Your task to perform on an android device: Check the news Image 0: 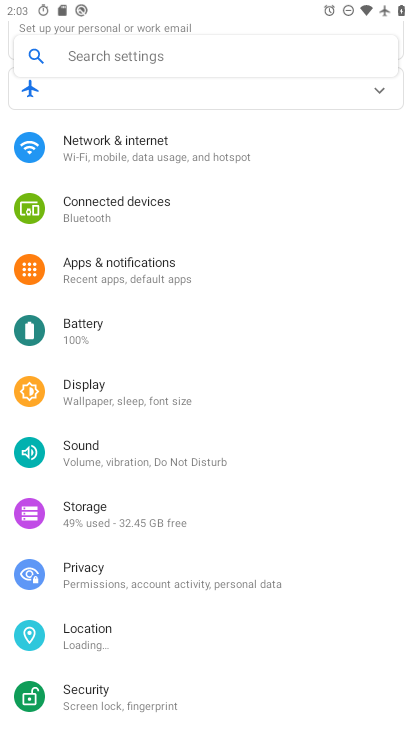
Step 0: press home button
Your task to perform on an android device: Check the news Image 1: 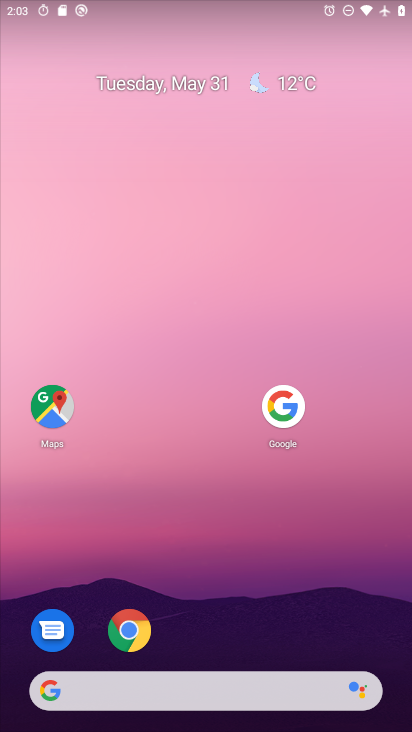
Step 1: click (55, 695)
Your task to perform on an android device: Check the news Image 2: 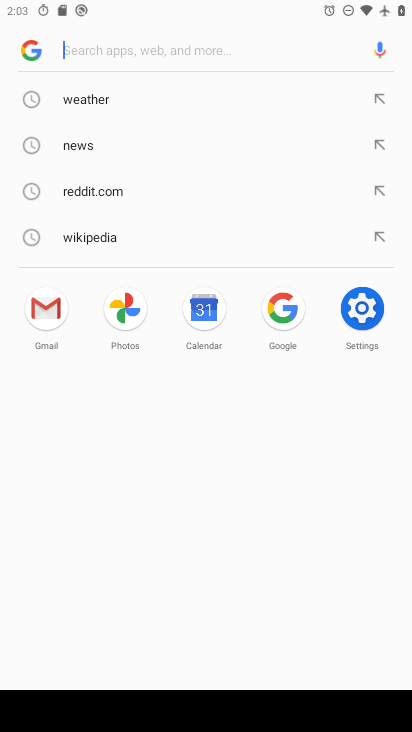
Step 2: click (76, 144)
Your task to perform on an android device: Check the news Image 3: 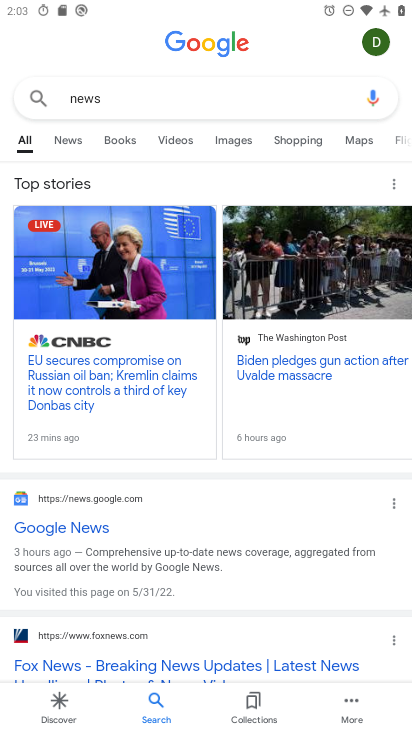
Step 3: click (65, 138)
Your task to perform on an android device: Check the news Image 4: 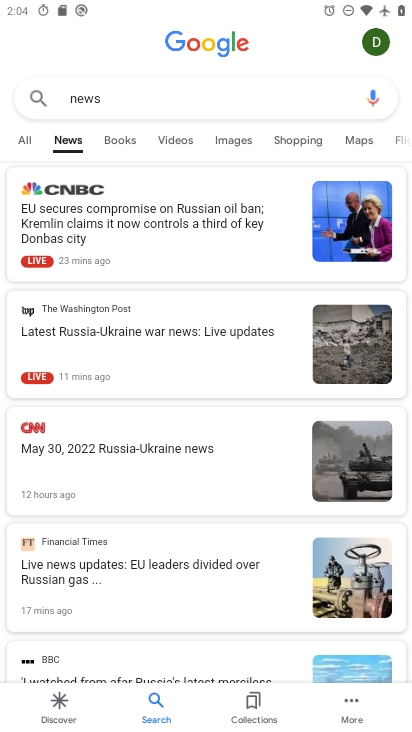
Step 4: task complete